Your task to perform on an android device: Open Google Maps Image 0: 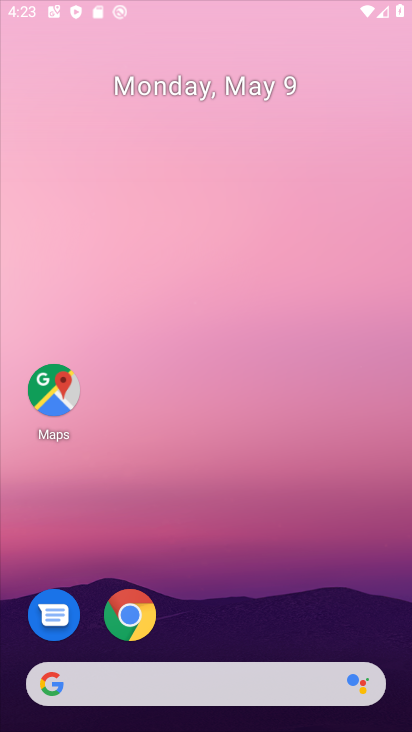
Step 0: click (319, 215)
Your task to perform on an android device: Open Google Maps Image 1: 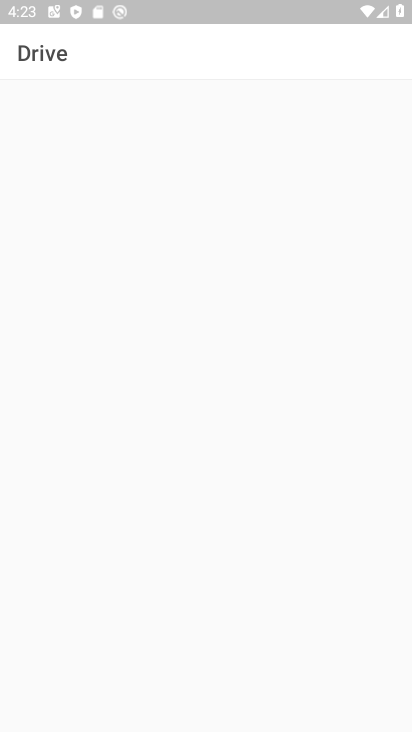
Step 1: click (319, 215)
Your task to perform on an android device: Open Google Maps Image 2: 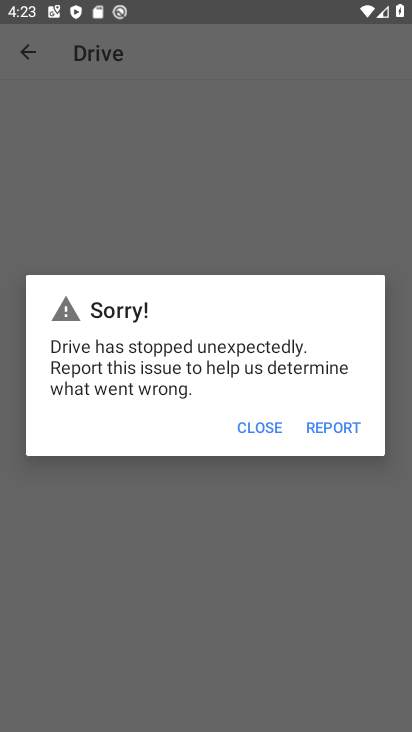
Step 2: press home button
Your task to perform on an android device: Open Google Maps Image 3: 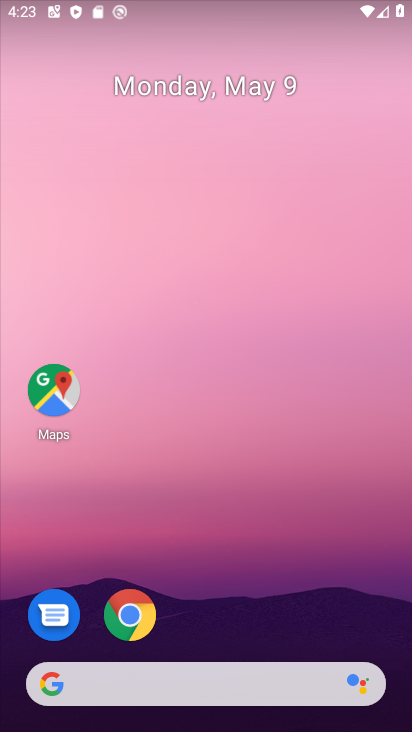
Step 3: click (54, 407)
Your task to perform on an android device: Open Google Maps Image 4: 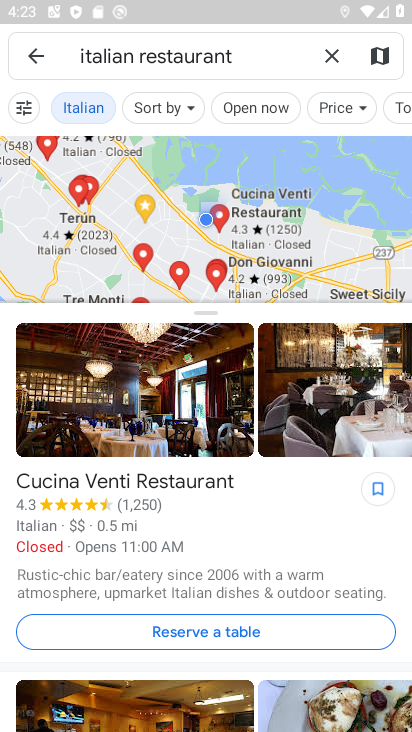
Step 4: task complete